Your task to perform on an android device: toggle airplane mode Image 0: 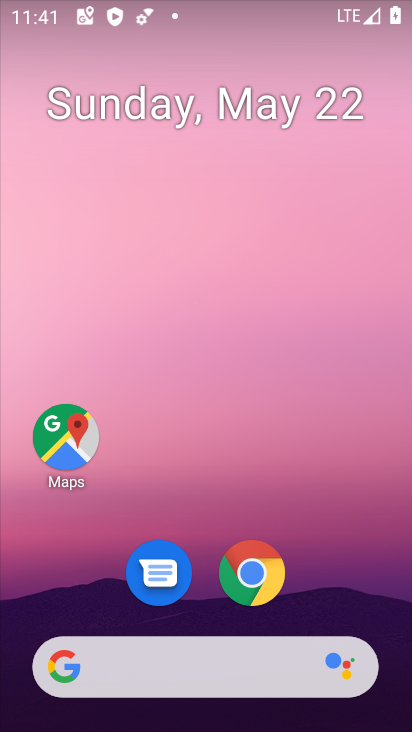
Step 0: drag from (324, 619) to (330, 37)
Your task to perform on an android device: toggle airplane mode Image 1: 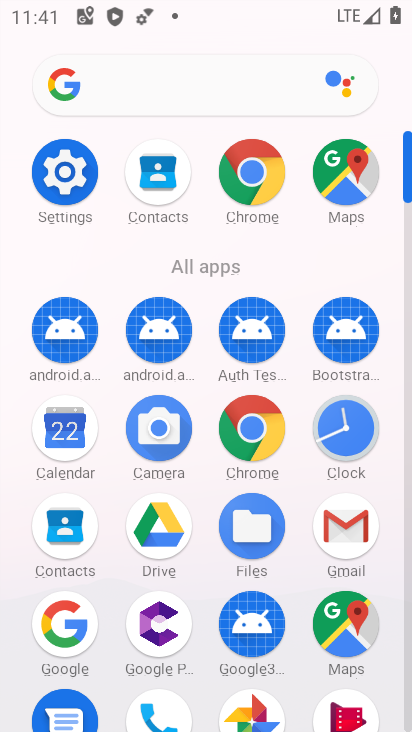
Step 1: click (76, 178)
Your task to perform on an android device: toggle airplane mode Image 2: 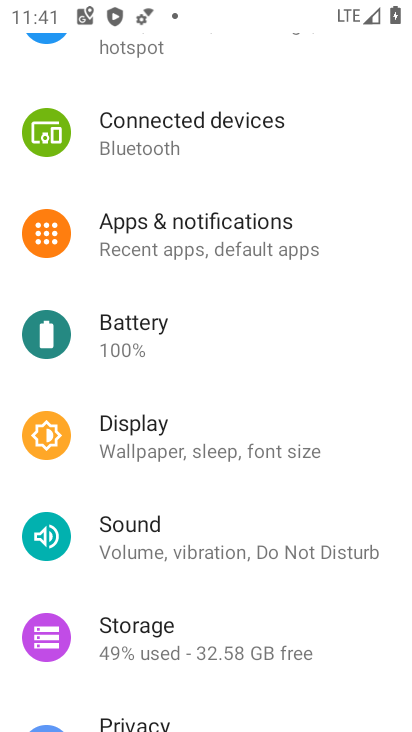
Step 2: drag from (187, 279) to (263, 586)
Your task to perform on an android device: toggle airplane mode Image 3: 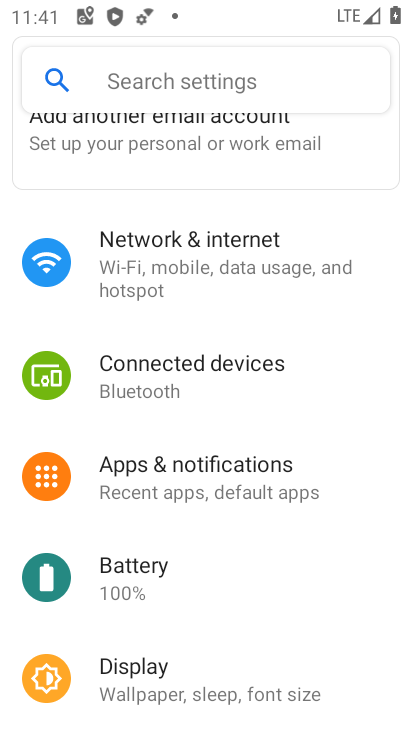
Step 3: click (163, 246)
Your task to perform on an android device: toggle airplane mode Image 4: 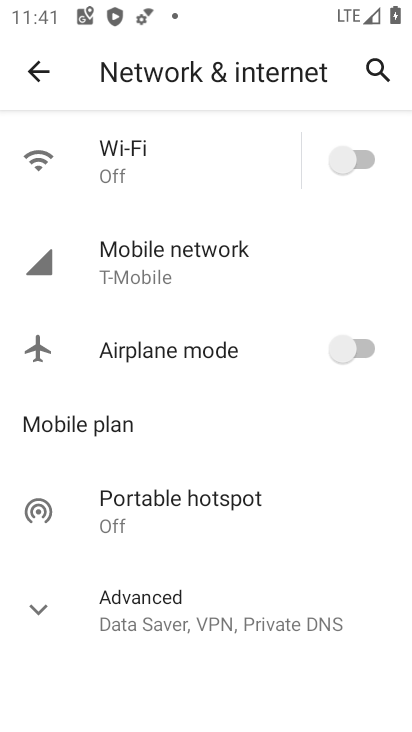
Step 4: click (354, 340)
Your task to perform on an android device: toggle airplane mode Image 5: 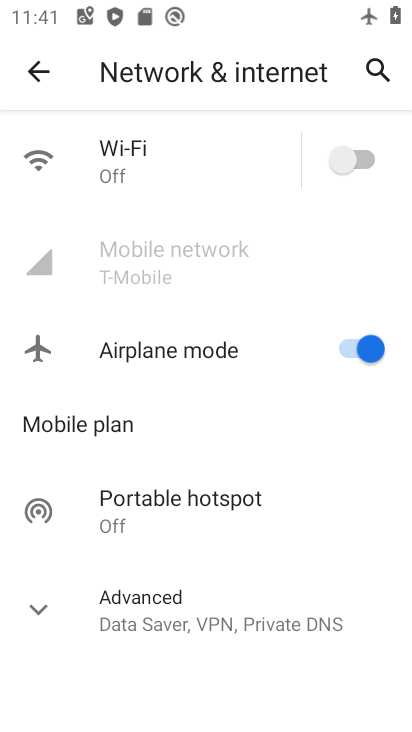
Step 5: task complete